Your task to perform on an android device: check out phone information Image 0: 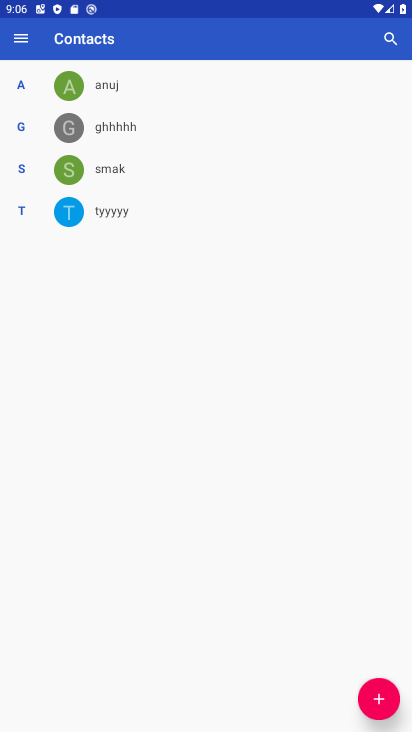
Step 0: press home button
Your task to perform on an android device: check out phone information Image 1: 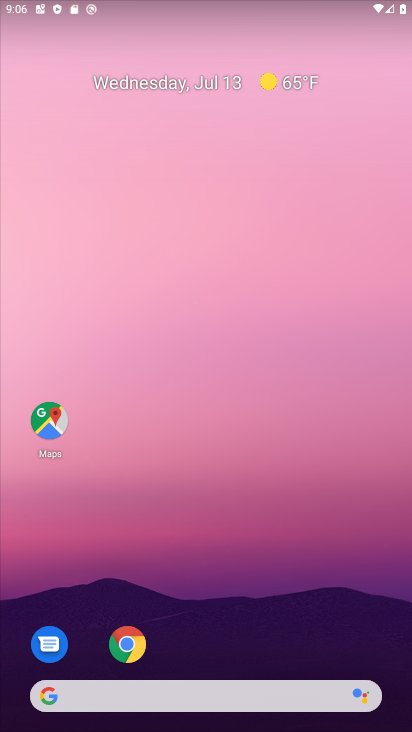
Step 1: drag from (273, 597) to (284, 68)
Your task to perform on an android device: check out phone information Image 2: 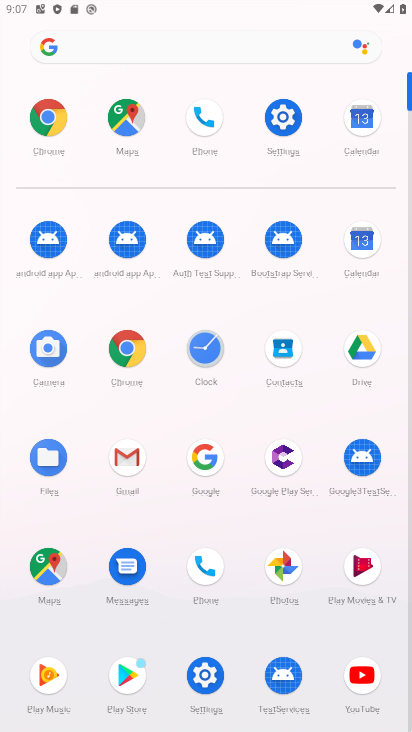
Step 2: click (286, 117)
Your task to perform on an android device: check out phone information Image 3: 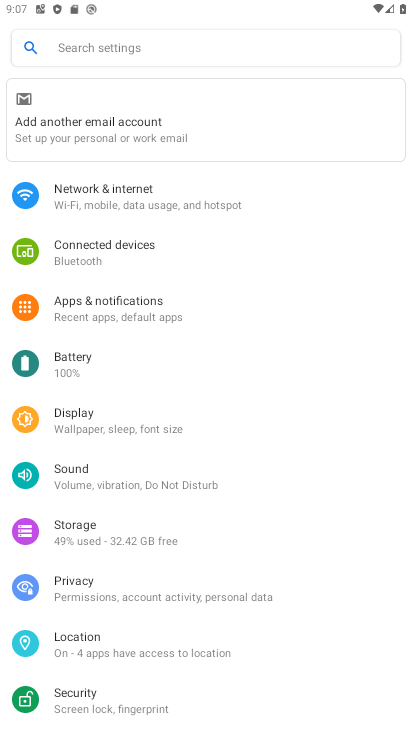
Step 3: drag from (184, 642) to (277, 120)
Your task to perform on an android device: check out phone information Image 4: 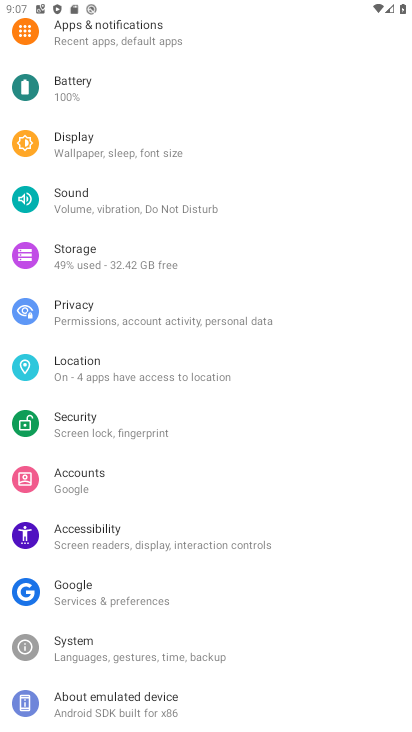
Step 4: click (108, 697)
Your task to perform on an android device: check out phone information Image 5: 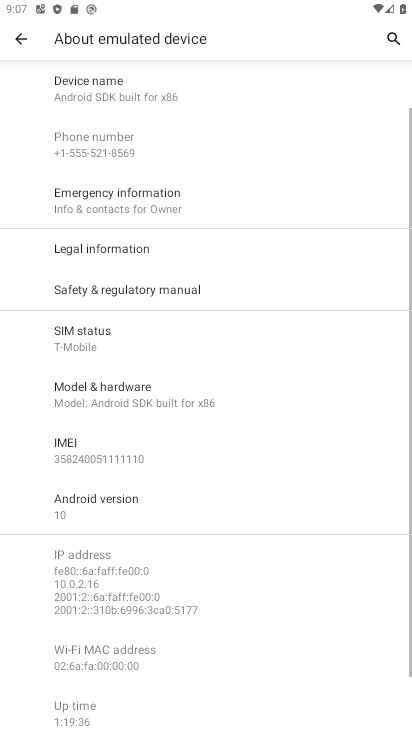
Step 5: task complete